Your task to perform on an android device: open app "DoorDash - Food Delivery" Image 0: 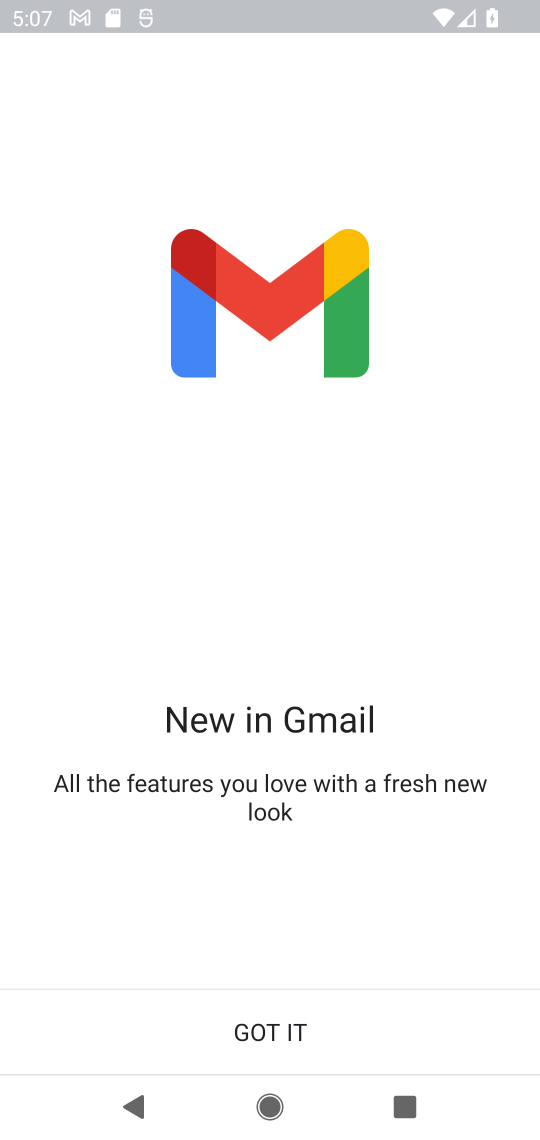
Step 0: press home button
Your task to perform on an android device: open app "DoorDash - Food Delivery" Image 1: 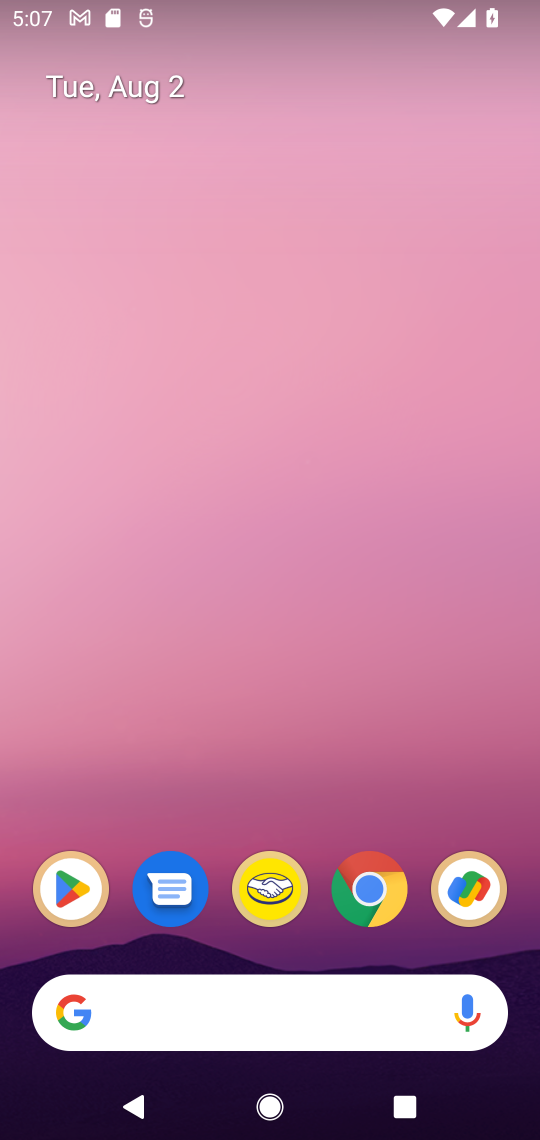
Step 1: drag from (411, 752) to (419, 78)
Your task to perform on an android device: open app "DoorDash - Food Delivery" Image 2: 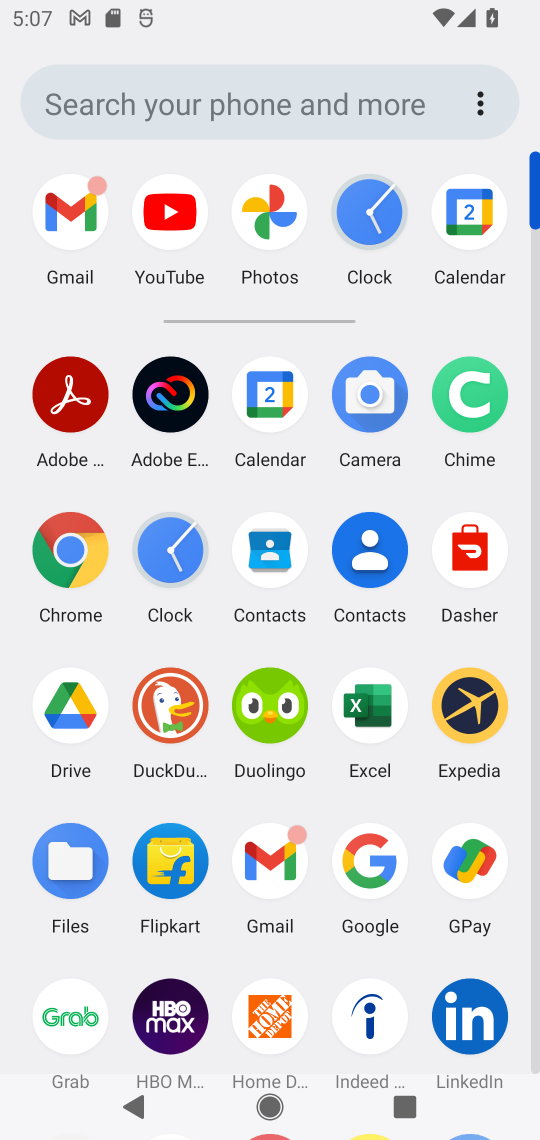
Step 2: drag from (504, 945) to (505, 610)
Your task to perform on an android device: open app "DoorDash - Food Delivery" Image 3: 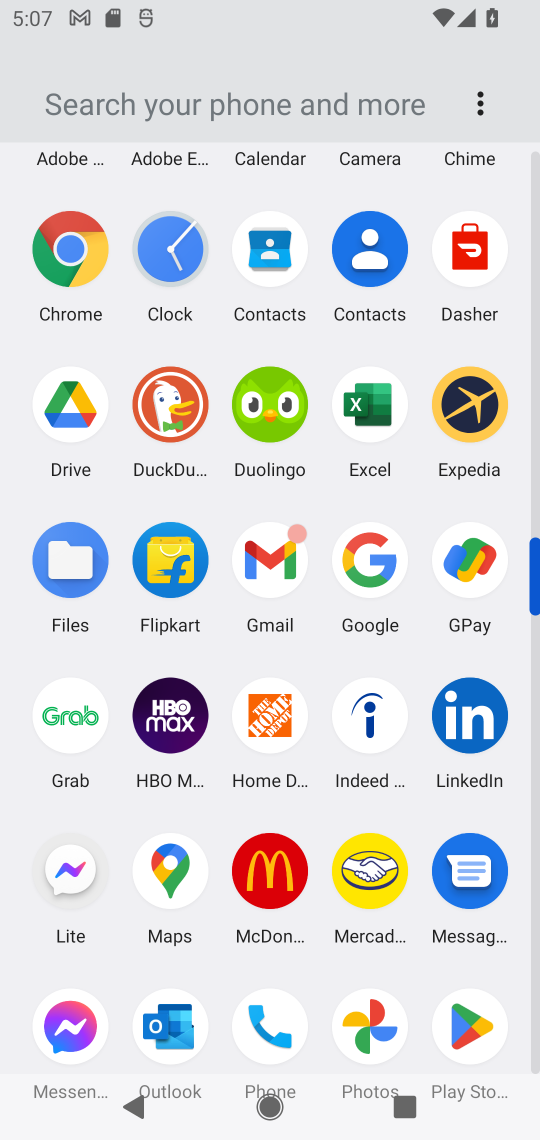
Step 3: click (476, 1026)
Your task to perform on an android device: open app "DoorDash - Food Delivery" Image 4: 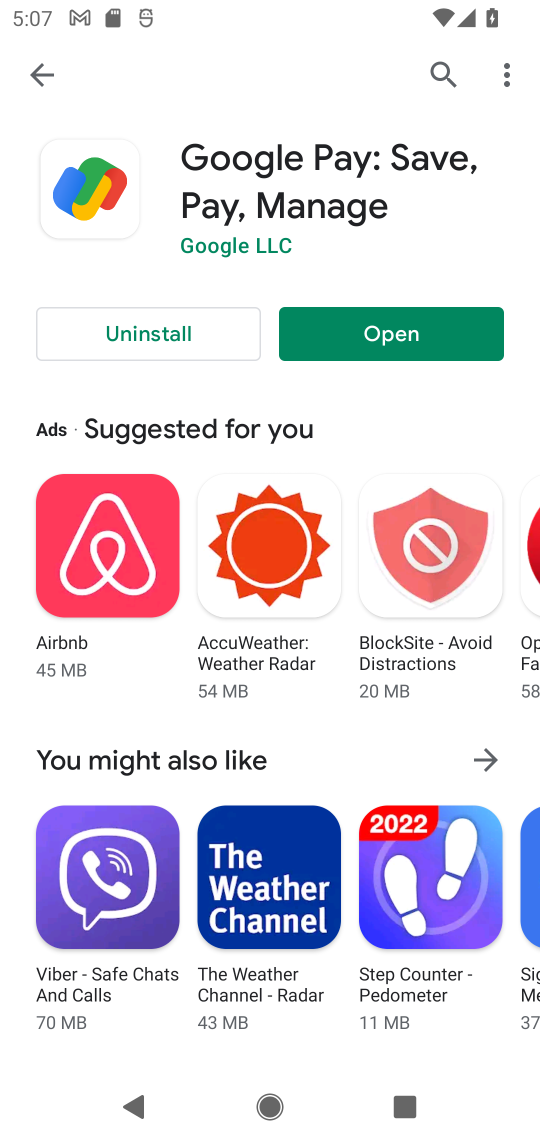
Step 4: click (444, 70)
Your task to perform on an android device: open app "DoorDash - Food Delivery" Image 5: 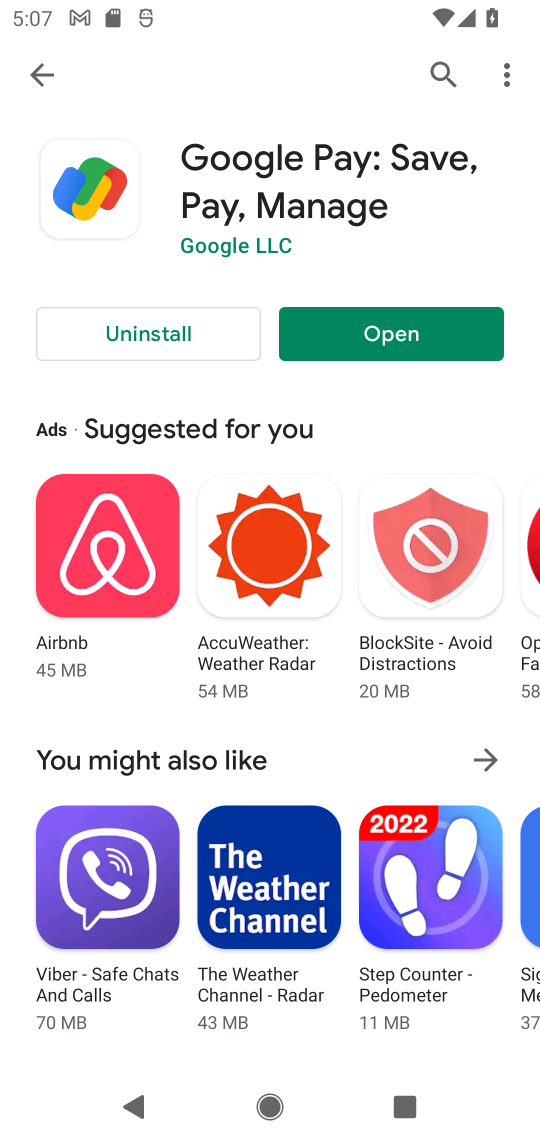
Step 5: click (432, 67)
Your task to perform on an android device: open app "DoorDash - Food Delivery" Image 6: 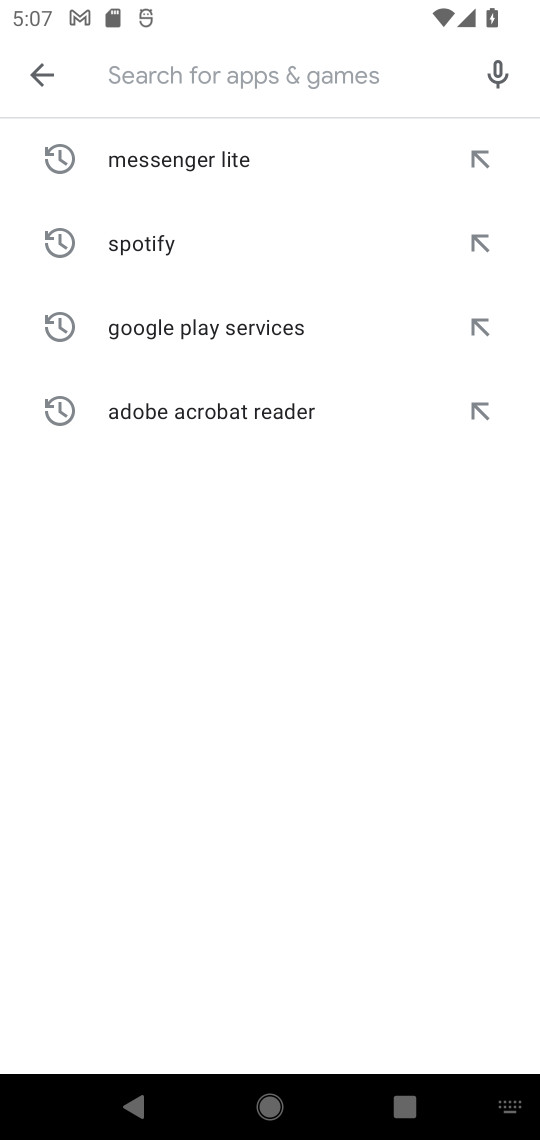
Step 6: click (304, 92)
Your task to perform on an android device: open app "DoorDash - Food Delivery" Image 7: 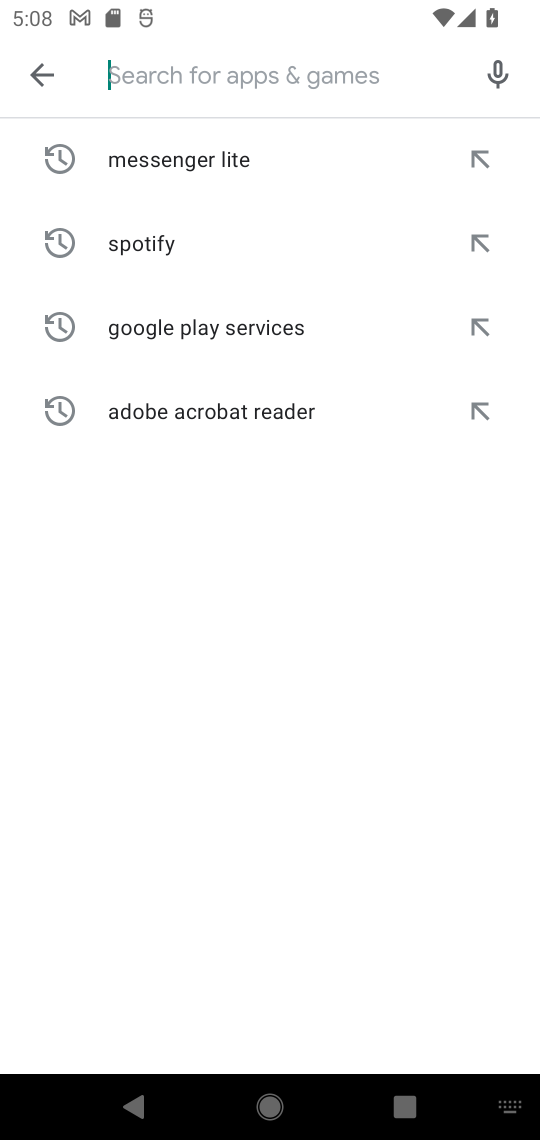
Step 7: type "DoorDash - Food Delivery"
Your task to perform on an android device: open app "DoorDash - Food Delivery" Image 8: 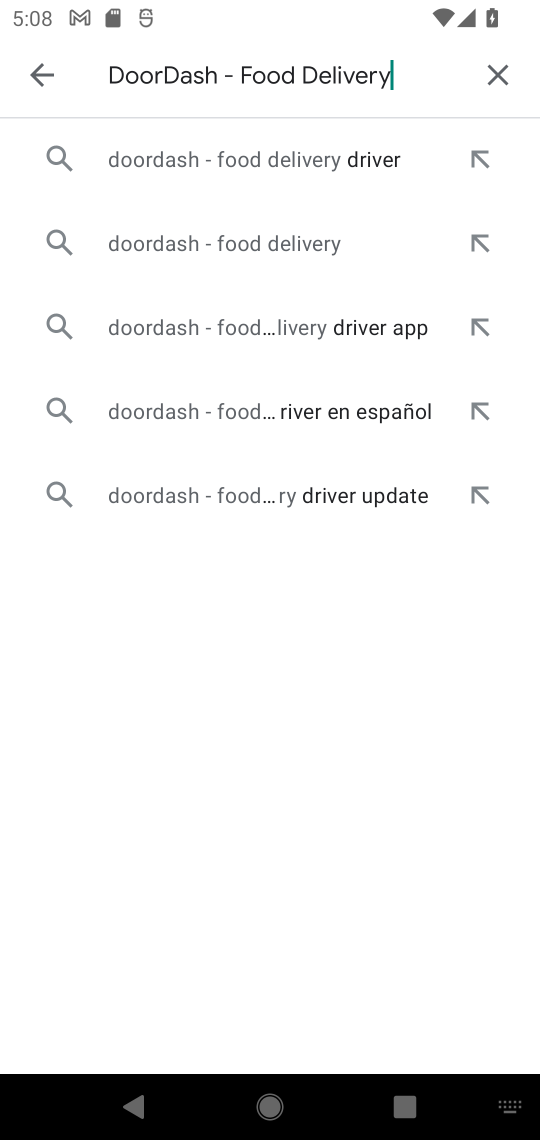
Step 8: click (305, 160)
Your task to perform on an android device: open app "DoorDash - Food Delivery" Image 9: 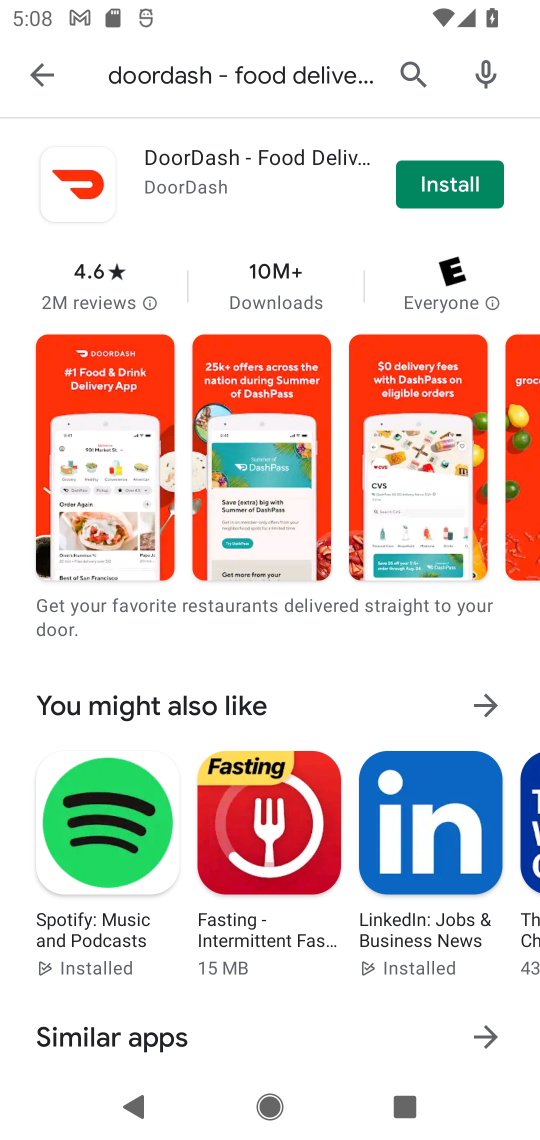
Step 9: task complete